Your task to perform on an android device: Open Reddit.com Image 0: 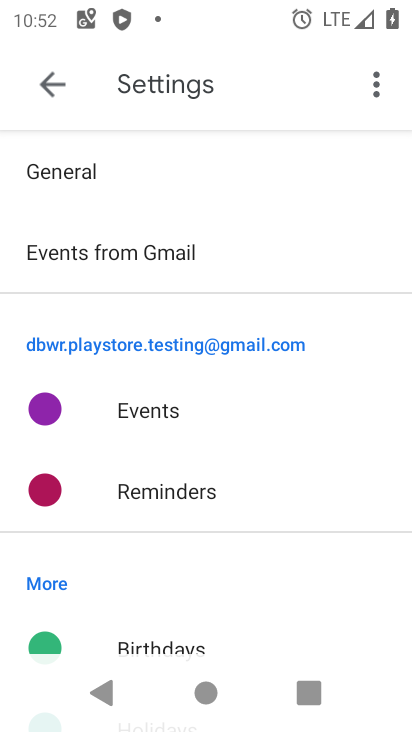
Step 0: press home button
Your task to perform on an android device: Open Reddit.com Image 1: 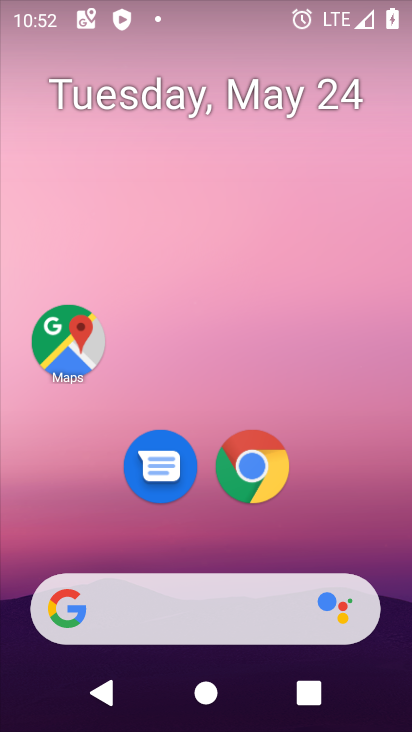
Step 1: drag from (358, 537) to (368, 258)
Your task to perform on an android device: Open Reddit.com Image 2: 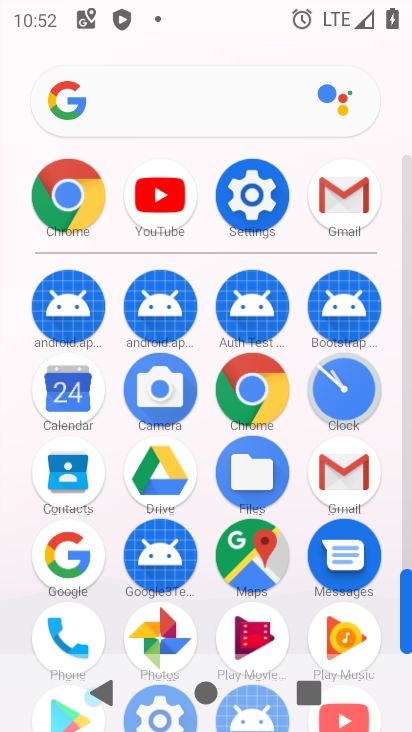
Step 2: click (269, 395)
Your task to perform on an android device: Open Reddit.com Image 3: 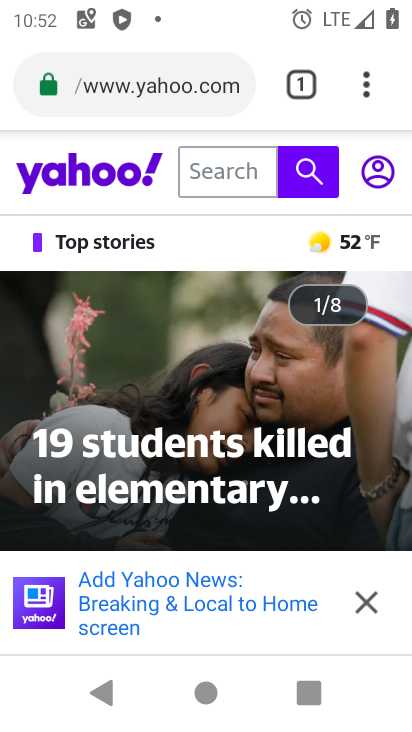
Step 3: click (211, 87)
Your task to perform on an android device: Open Reddit.com Image 4: 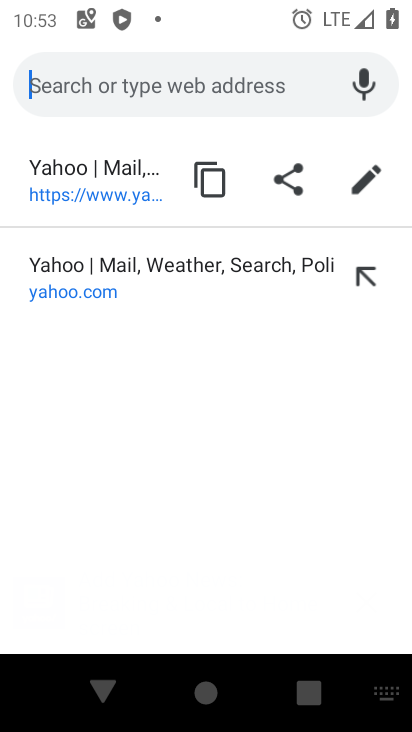
Step 4: type "reddit.com"
Your task to perform on an android device: Open Reddit.com Image 5: 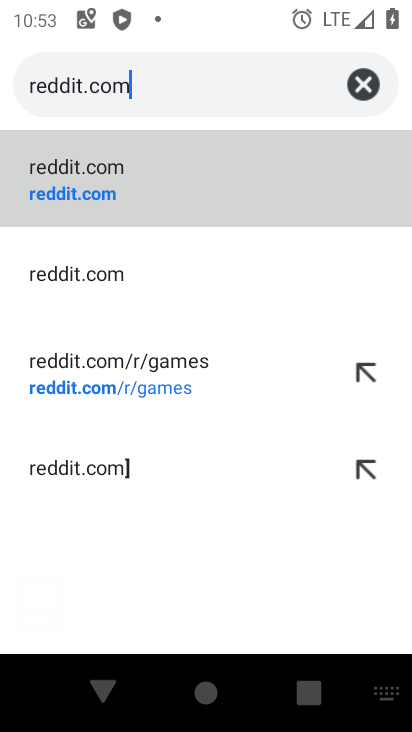
Step 5: click (118, 264)
Your task to perform on an android device: Open Reddit.com Image 6: 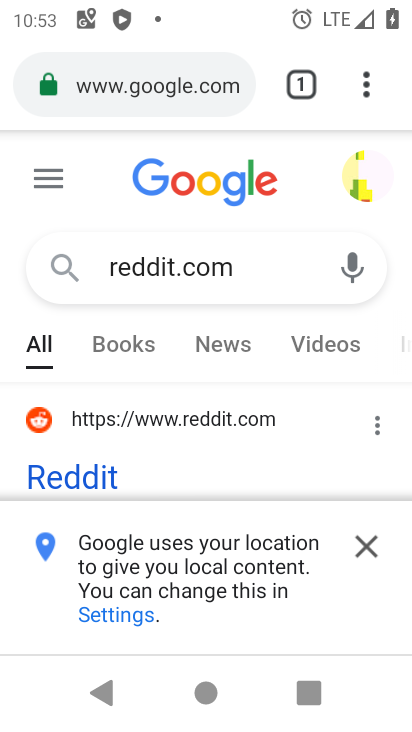
Step 6: task complete